Your task to perform on an android device: Open the stopwatch Image 0: 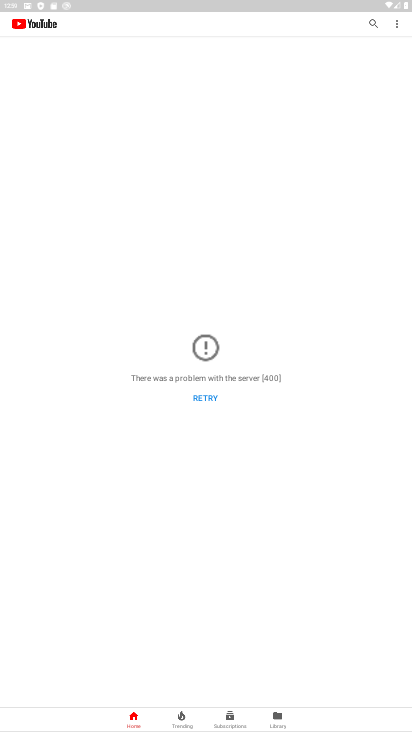
Step 0: press home button
Your task to perform on an android device: Open the stopwatch Image 1: 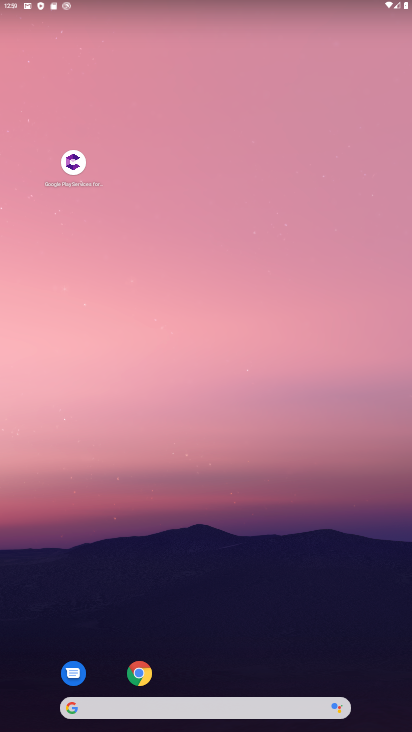
Step 1: drag from (226, 619) to (159, 14)
Your task to perform on an android device: Open the stopwatch Image 2: 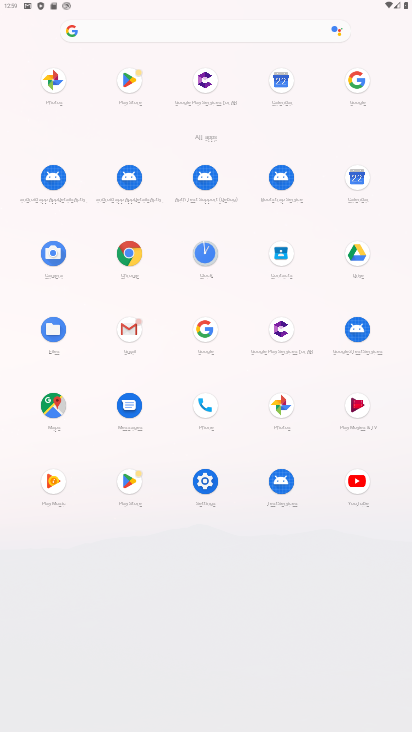
Step 2: click (205, 254)
Your task to perform on an android device: Open the stopwatch Image 3: 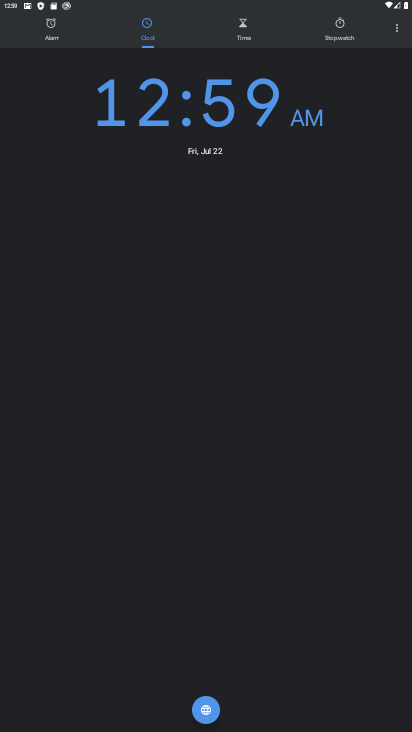
Step 3: click (343, 16)
Your task to perform on an android device: Open the stopwatch Image 4: 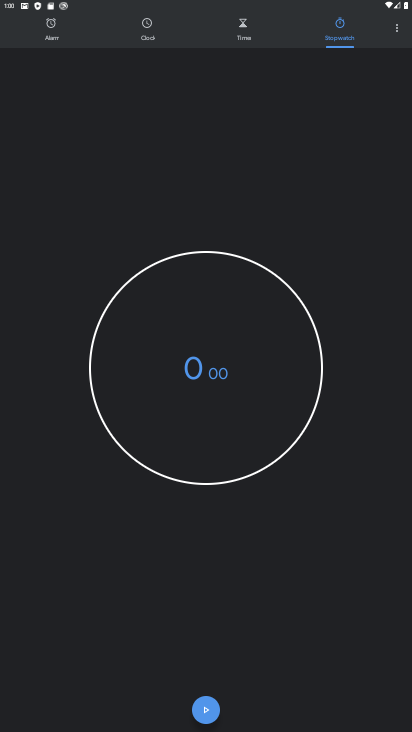
Step 4: click (211, 712)
Your task to perform on an android device: Open the stopwatch Image 5: 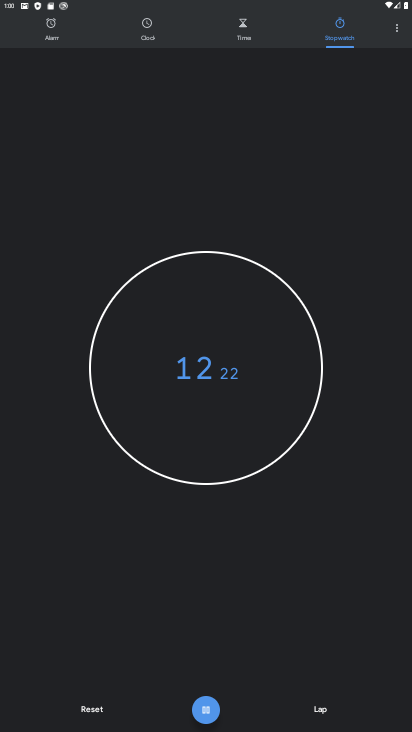
Step 5: task complete